Your task to perform on an android device: Go to Wikipedia Image 0: 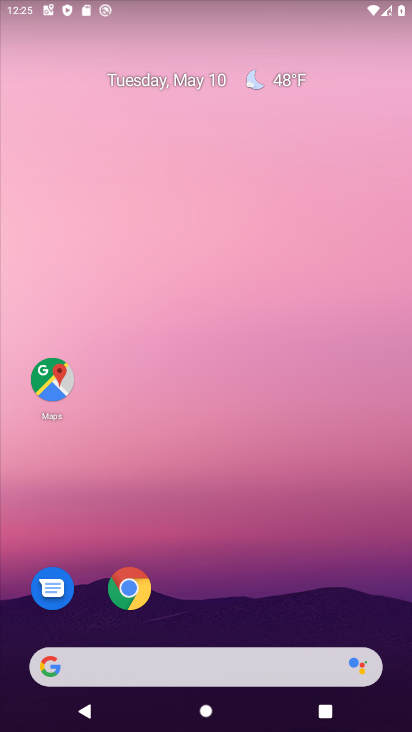
Step 0: click (126, 583)
Your task to perform on an android device: Go to Wikipedia Image 1: 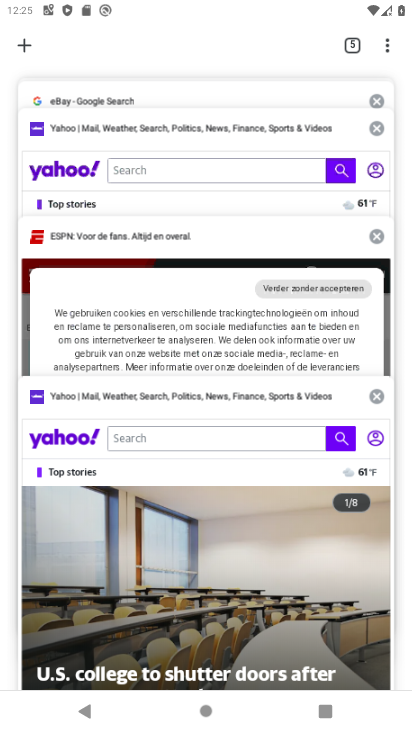
Step 1: click (27, 41)
Your task to perform on an android device: Go to Wikipedia Image 2: 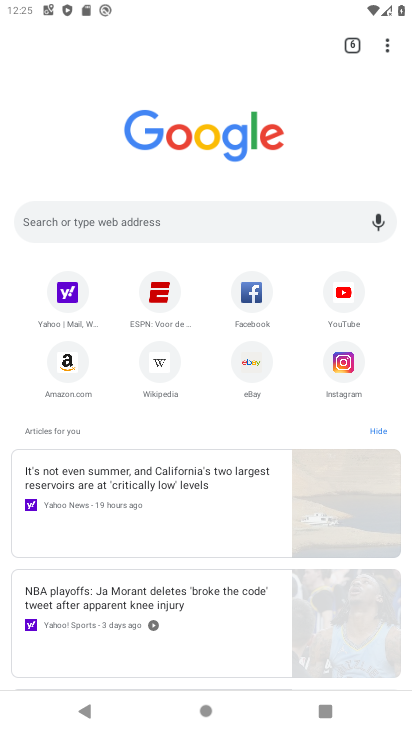
Step 2: click (27, 41)
Your task to perform on an android device: Go to Wikipedia Image 3: 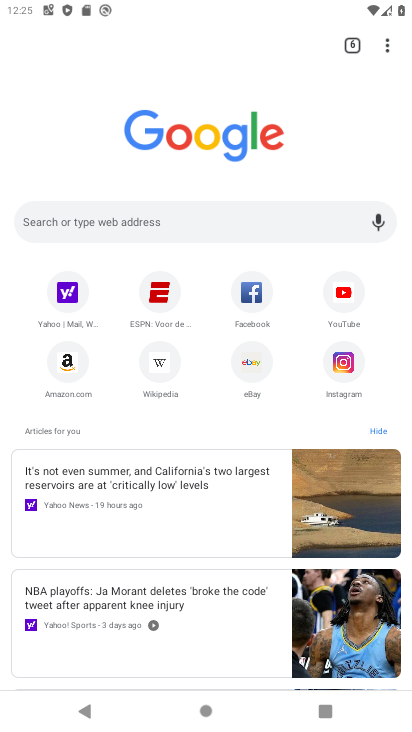
Step 3: click (161, 356)
Your task to perform on an android device: Go to Wikipedia Image 4: 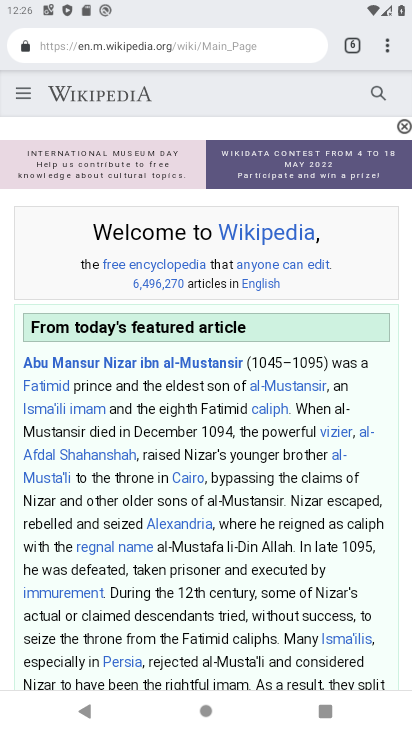
Step 4: task complete